Your task to perform on an android device: Go to settings Image 0: 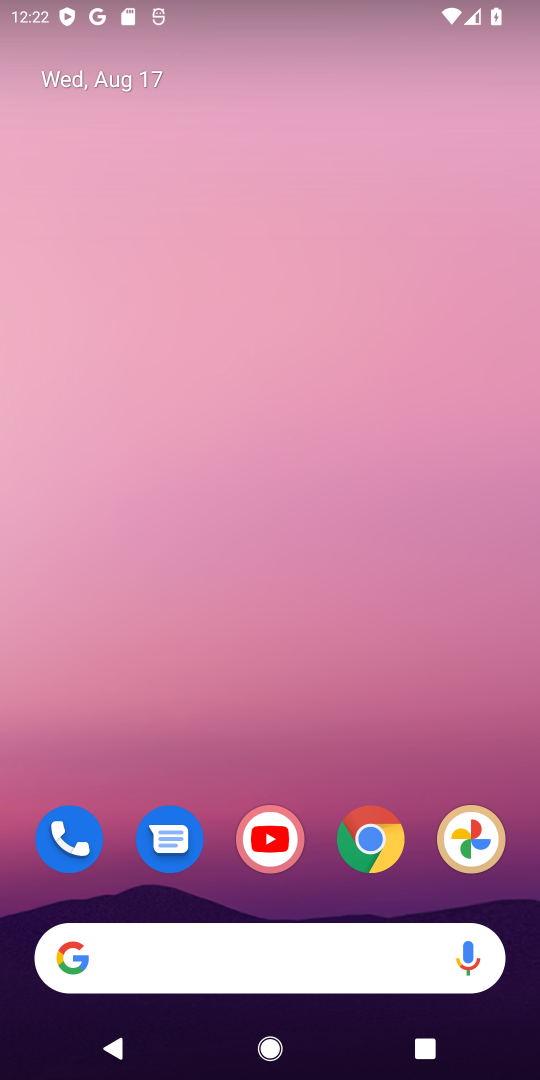
Step 0: drag from (229, 961) to (330, 263)
Your task to perform on an android device: Go to settings Image 1: 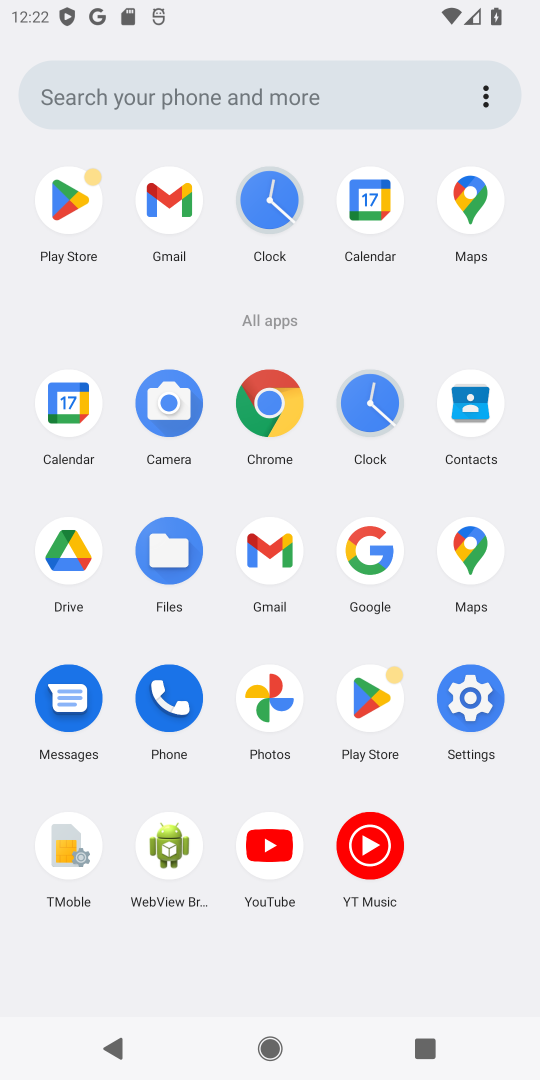
Step 1: click (468, 700)
Your task to perform on an android device: Go to settings Image 2: 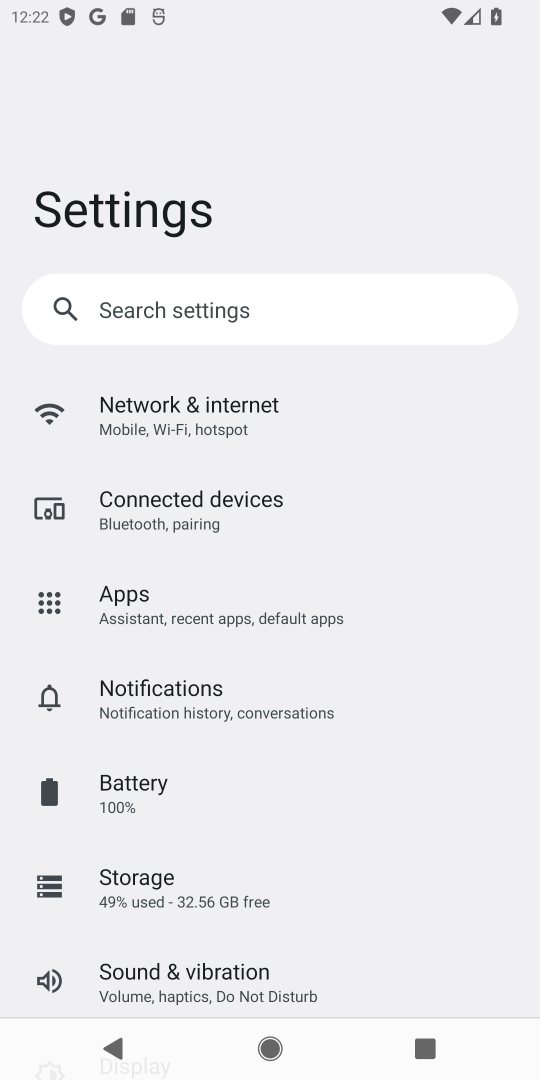
Step 2: task complete